Your task to perform on an android device: turn off notifications settings in the gmail app Image 0: 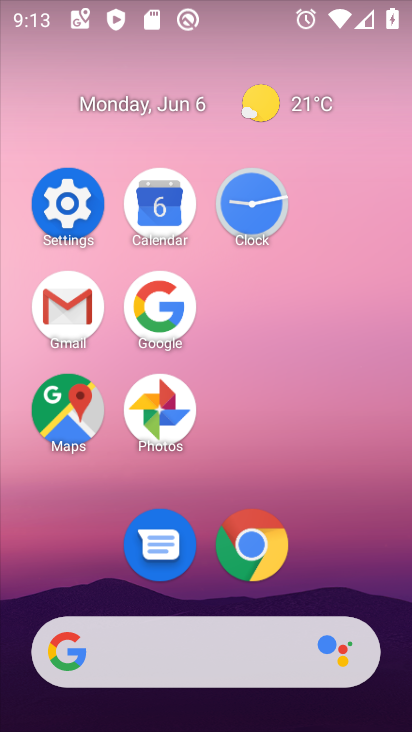
Step 0: click (68, 316)
Your task to perform on an android device: turn off notifications settings in the gmail app Image 1: 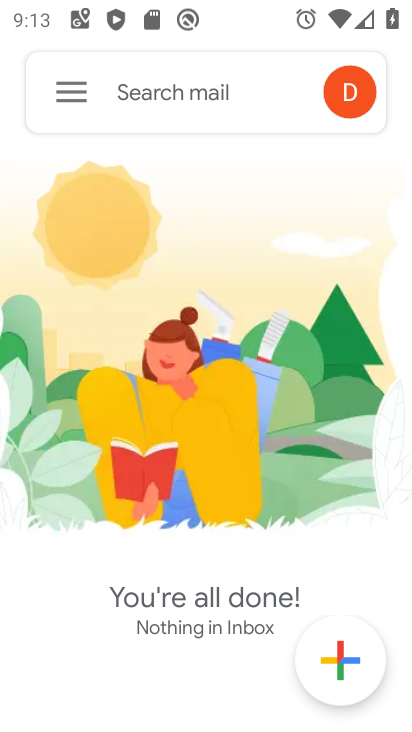
Step 1: click (88, 91)
Your task to perform on an android device: turn off notifications settings in the gmail app Image 2: 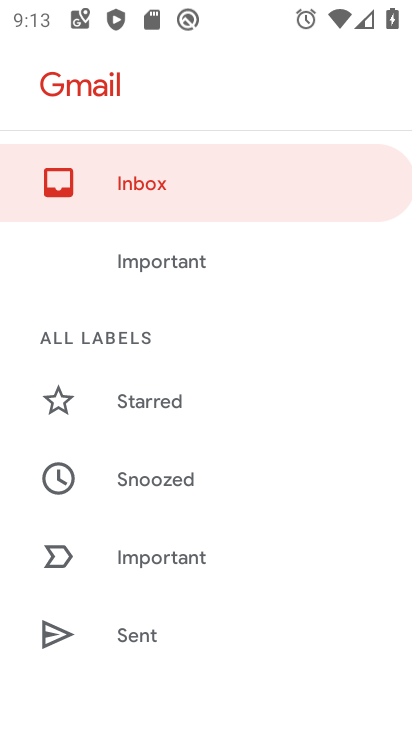
Step 2: drag from (201, 514) to (181, 119)
Your task to perform on an android device: turn off notifications settings in the gmail app Image 3: 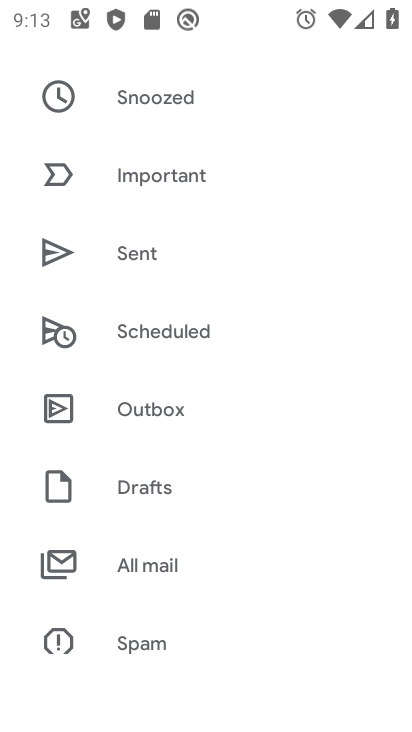
Step 3: drag from (235, 590) to (235, 165)
Your task to perform on an android device: turn off notifications settings in the gmail app Image 4: 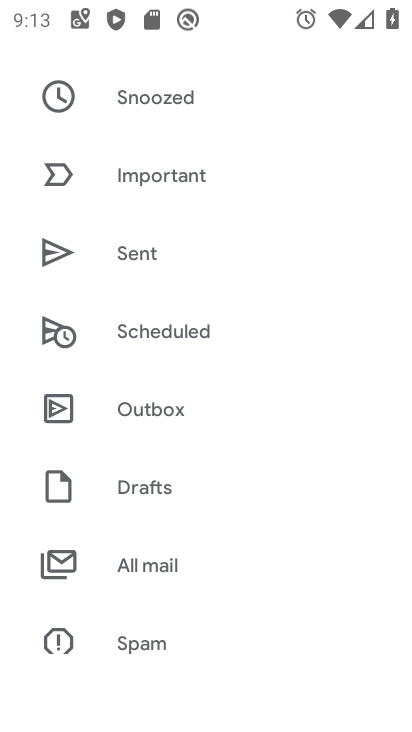
Step 4: drag from (231, 578) to (301, 209)
Your task to perform on an android device: turn off notifications settings in the gmail app Image 5: 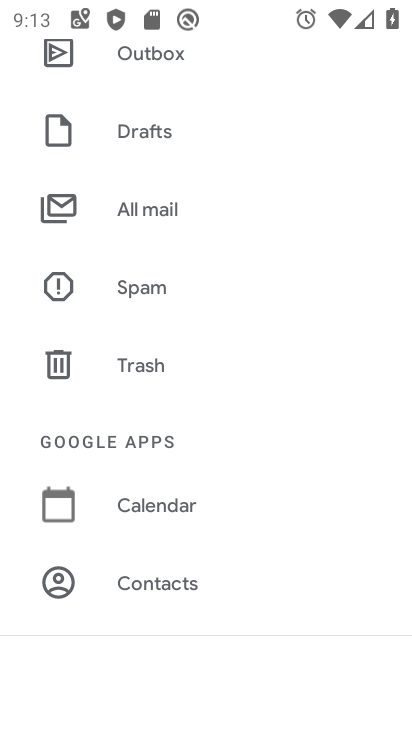
Step 5: drag from (220, 569) to (250, 149)
Your task to perform on an android device: turn off notifications settings in the gmail app Image 6: 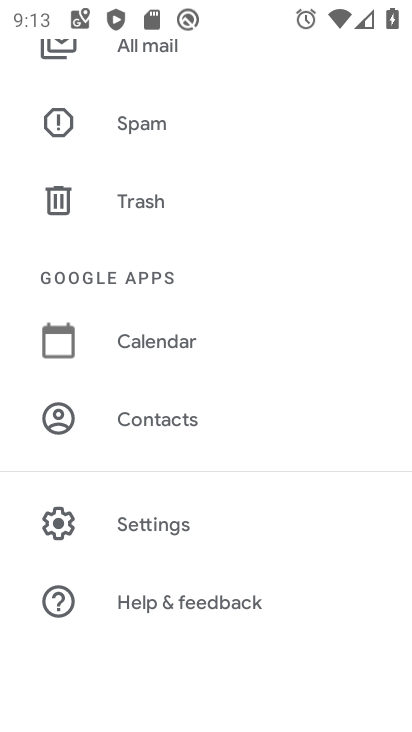
Step 6: click (189, 555)
Your task to perform on an android device: turn off notifications settings in the gmail app Image 7: 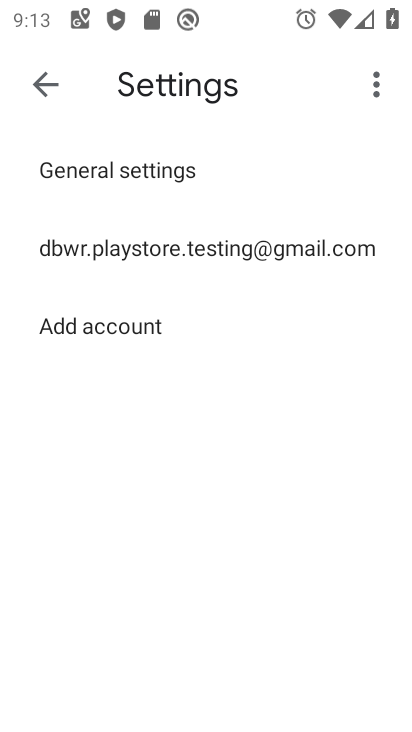
Step 7: click (226, 246)
Your task to perform on an android device: turn off notifications settings in the gmail app Image 8: 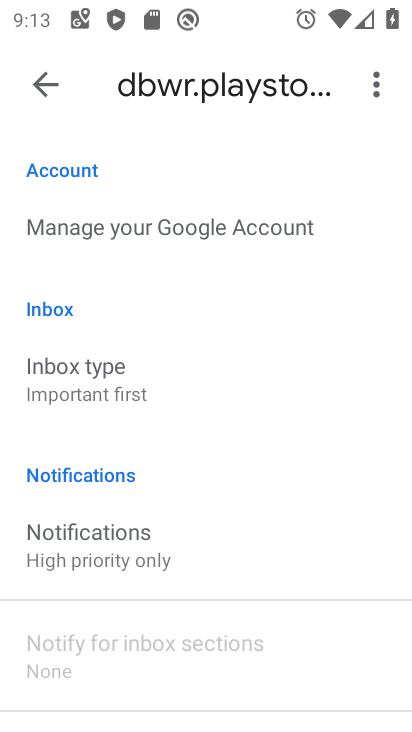
Step 8: click (115, 550)
Your task to perform on an android device: turn off notifications settings in the gmail app Image 9: 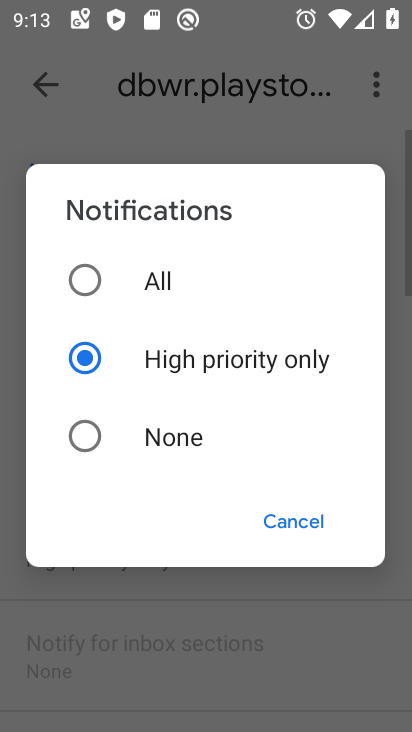
Step 9: click (135, 272)
Your task to perform on an android device: turn off notifications settings in the gmail app Image 10: 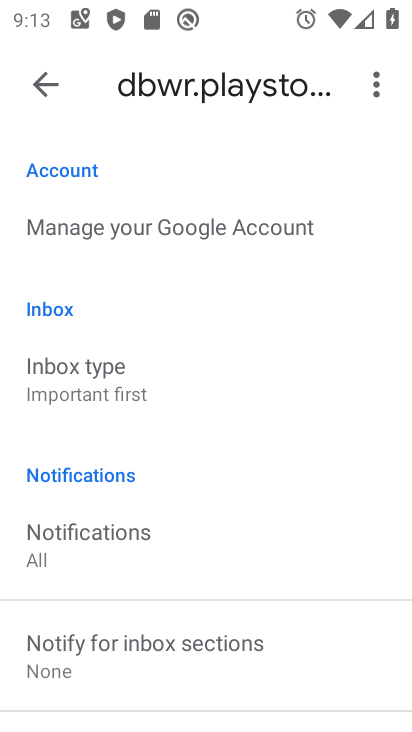
Step 10: click (217, 542)
Your task to perform on an android device: turn off notifications settings in the gmail app Image 11: 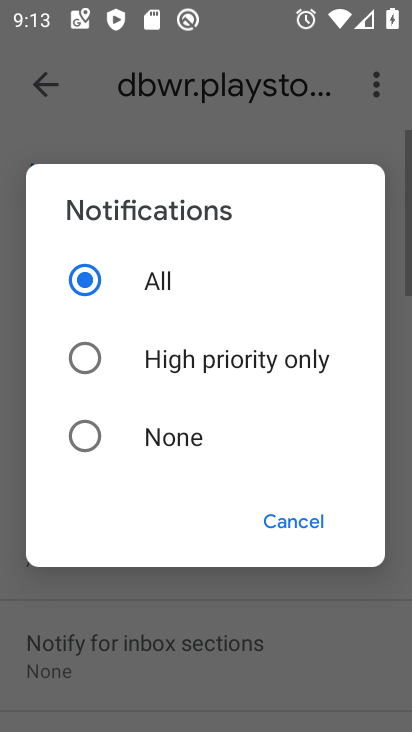
Step 11: click (153, 443)
Your task to perform on an android device: turn off notifications settings in the gmail app Image 12: 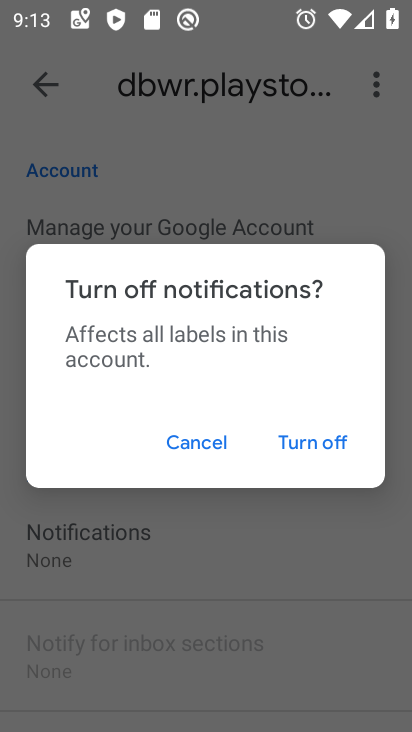
Step 12: click (330, 428)
Your task to perform on an android device: turn off notifications settings in the gmail app Image 13: 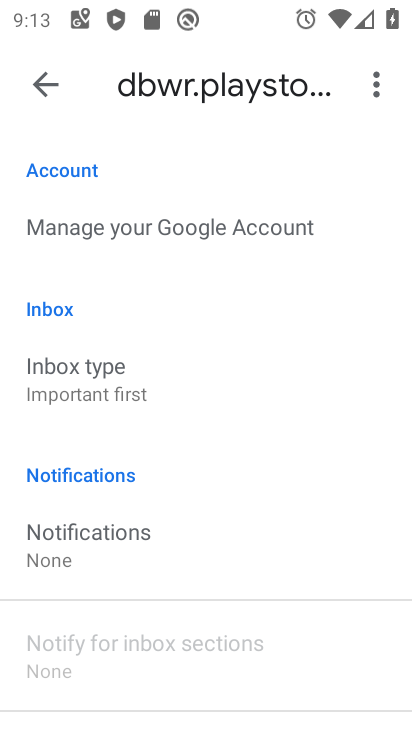
Step 13: task complete